Your task to perform on an android device: Open Reddit.com Image 0: 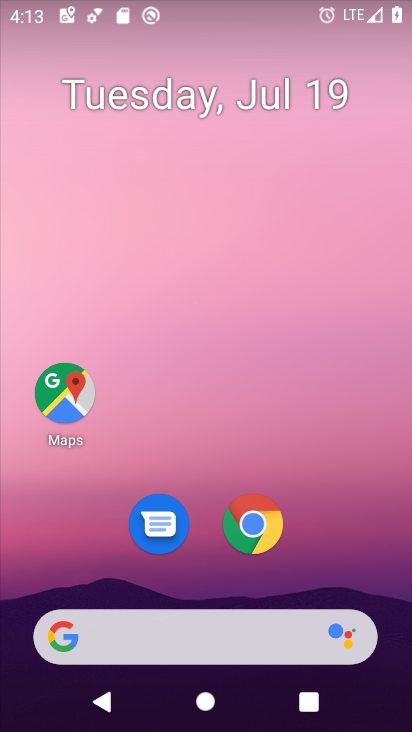
Step 0: click (258, 649)
Your task to perform on an android device: Open Reddit.com Image 1: 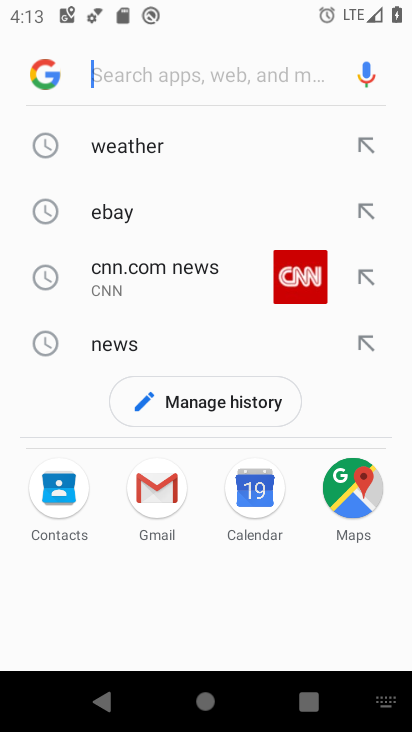
Step 1: type "reddit.com"
Your task to perform on an android device: Open Reddit.com Image 2: 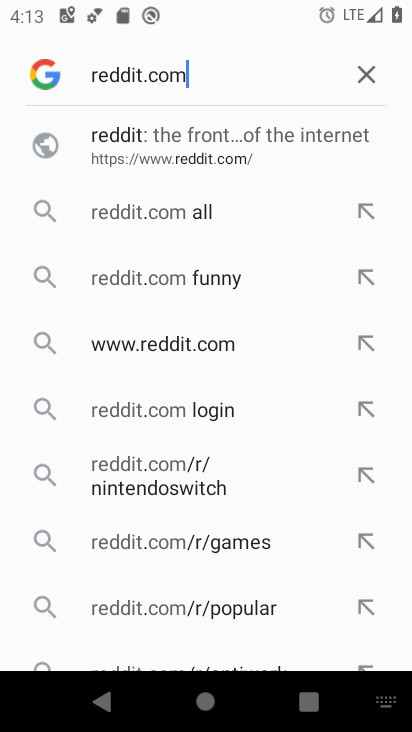
Step 2: click (134, 196)
Your task to perform on an android device: Open Reddit.com Image 3: 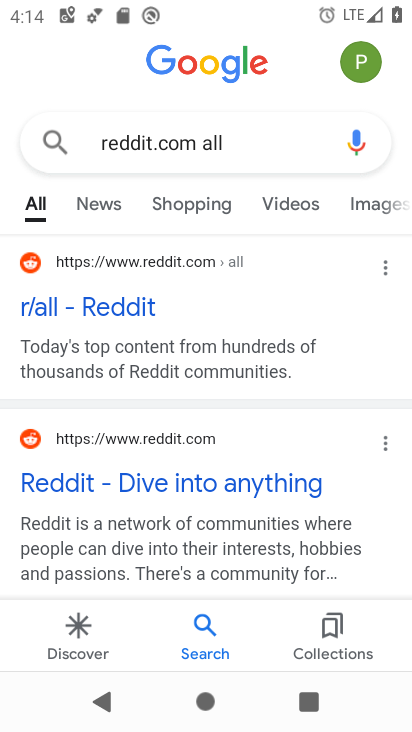
Step 3: click (136, 297)
Your task to perform on an android device: Open Reddit.com Image 4: 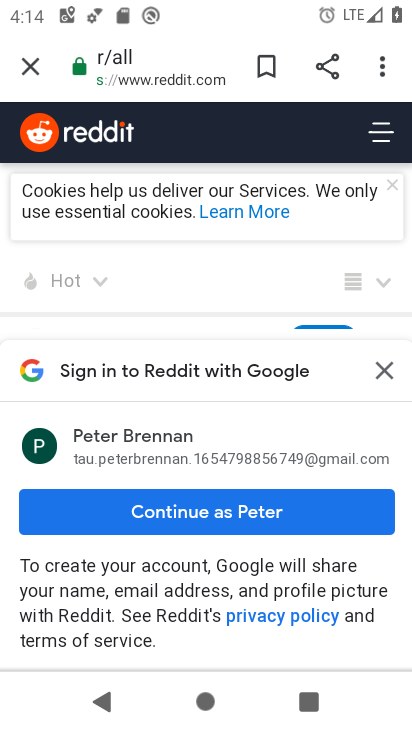
Step 4: click (354, 512)
Your task to perform on an android device: Open Reddit.com Image 5: 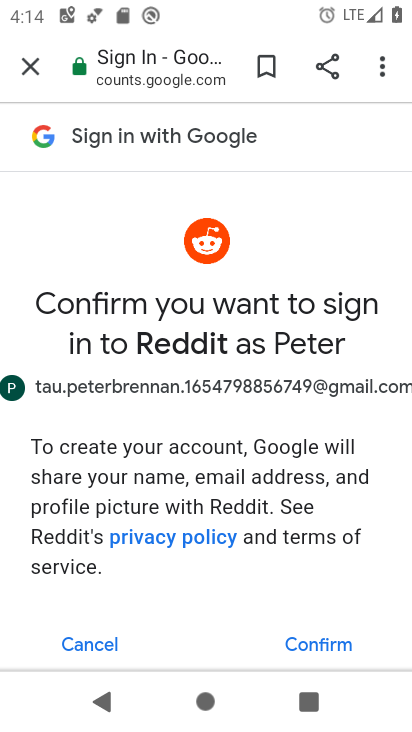
Step 5: task complete